Your task to perform on an android device: open app "Google Calendar" Image 0: 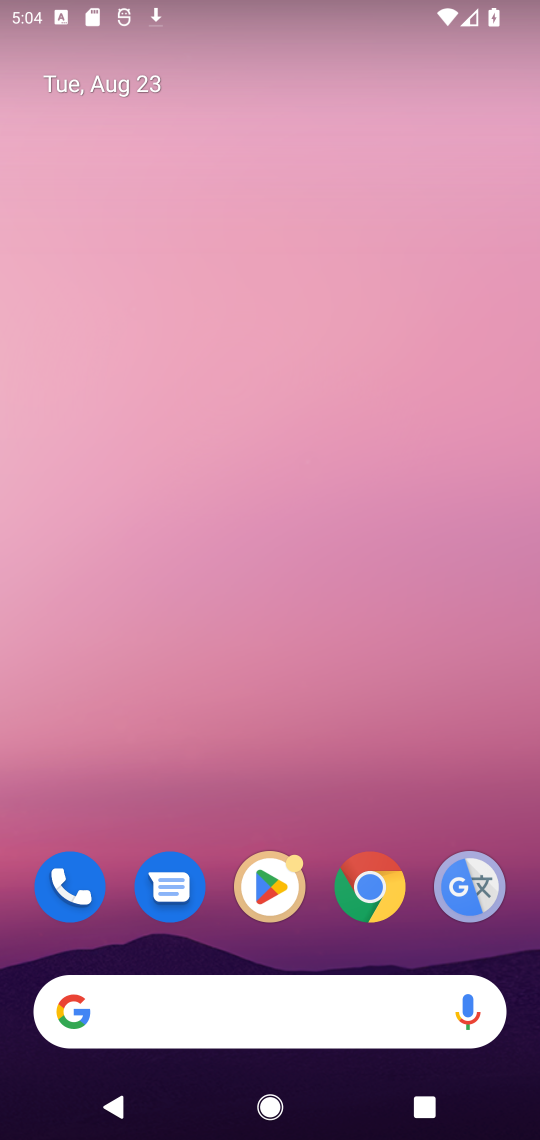
Step 0: click (245, 872)
Your task to perform on an android device: open app "Google Calendar" Image 1: 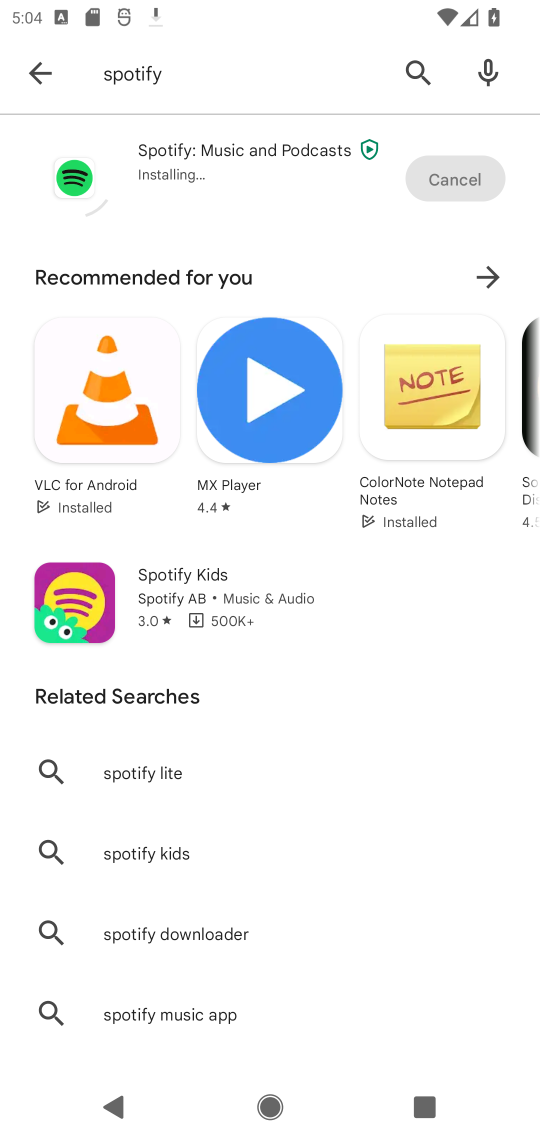
Step 1: click (467, 173)
Your task to perform on an android device: open app "Google Calendar" Image 2: 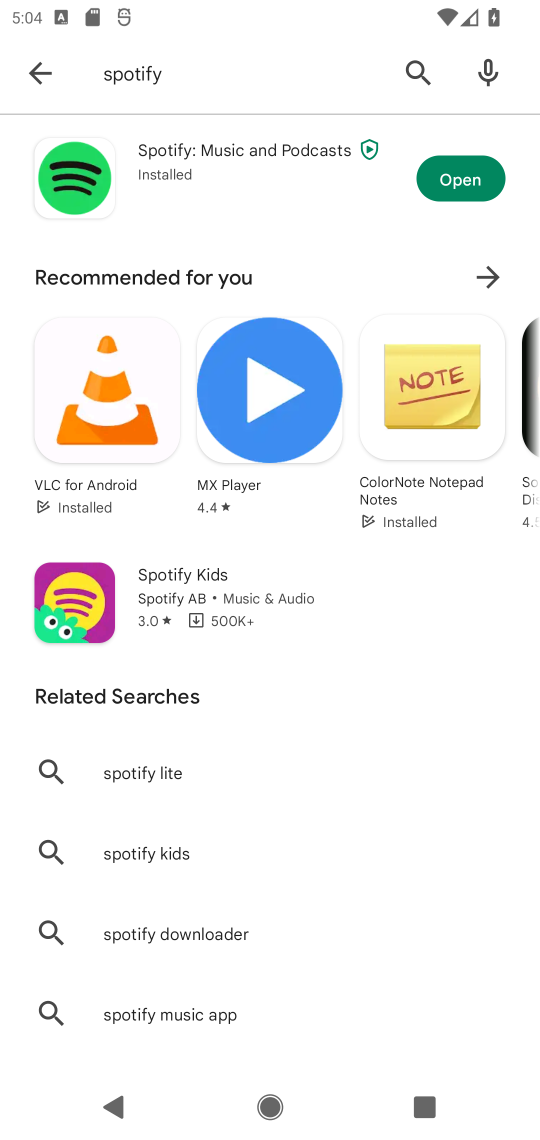
Step 2: click (34, 65)
Your task to perform on an android device: open app "Google Calendar" Image 3: 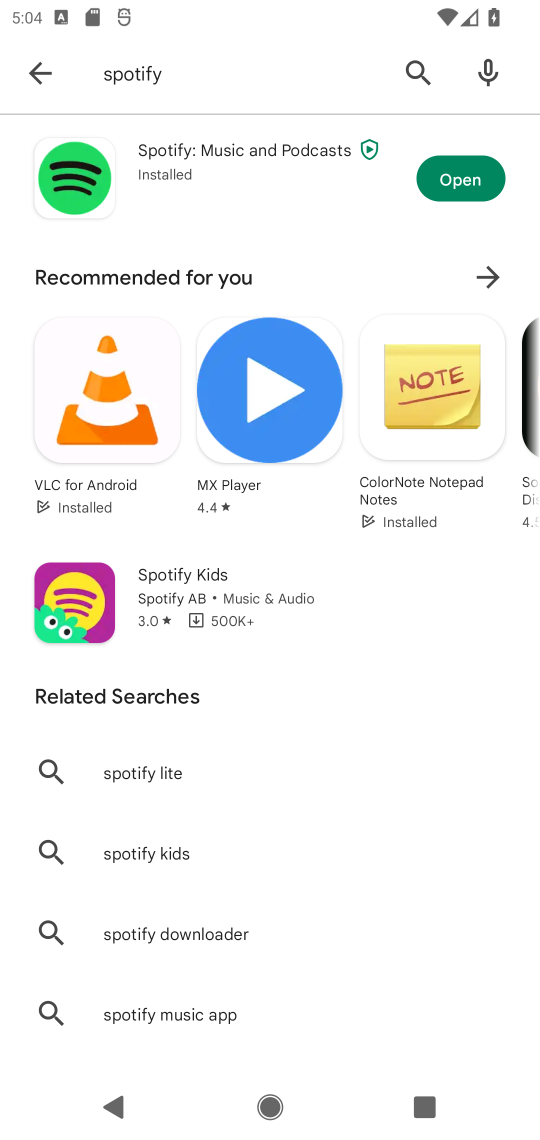
Step 3: click (35, 80)
Your task to perform on an android device: open app "Google Calendar" Image 4: 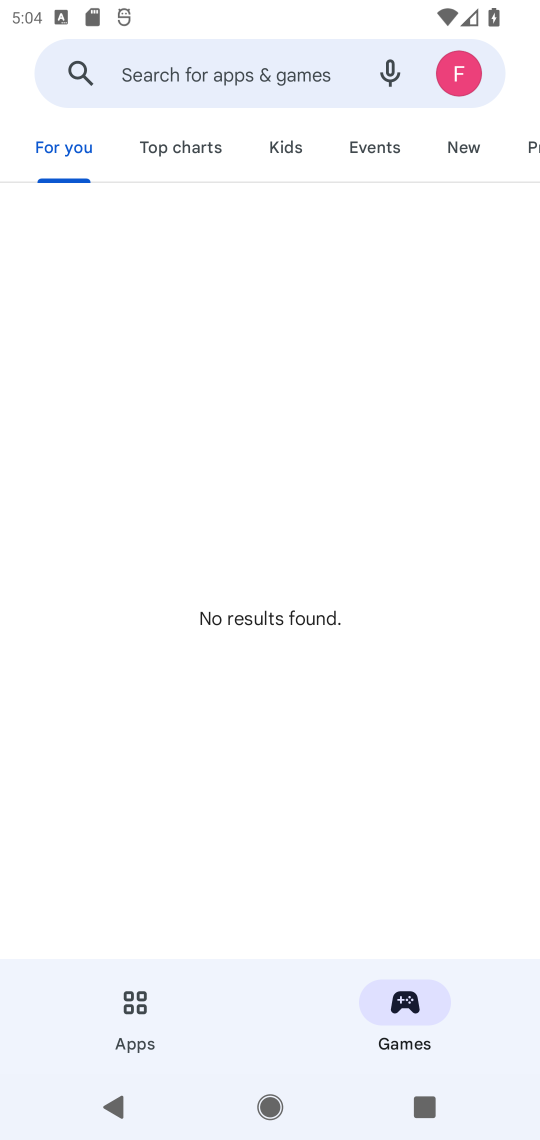
Step 4: click (141, 74)
Your task to perform on an android device: open app "Google Calendar" Image 5: 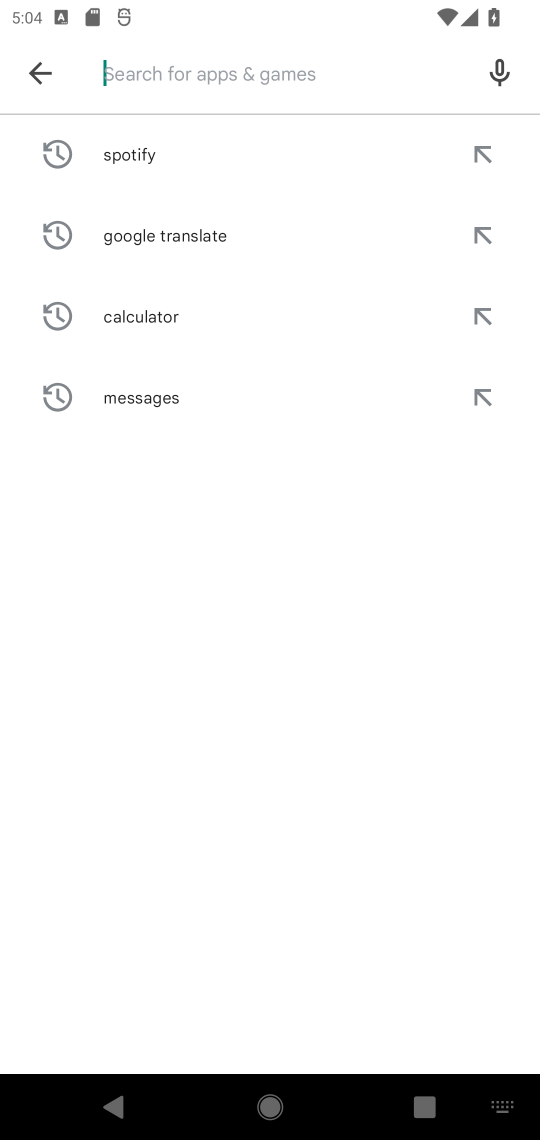
Step 5: type "Google Calendar"
Your task to perform on an android device: open app "Google Calendar" Image 6: 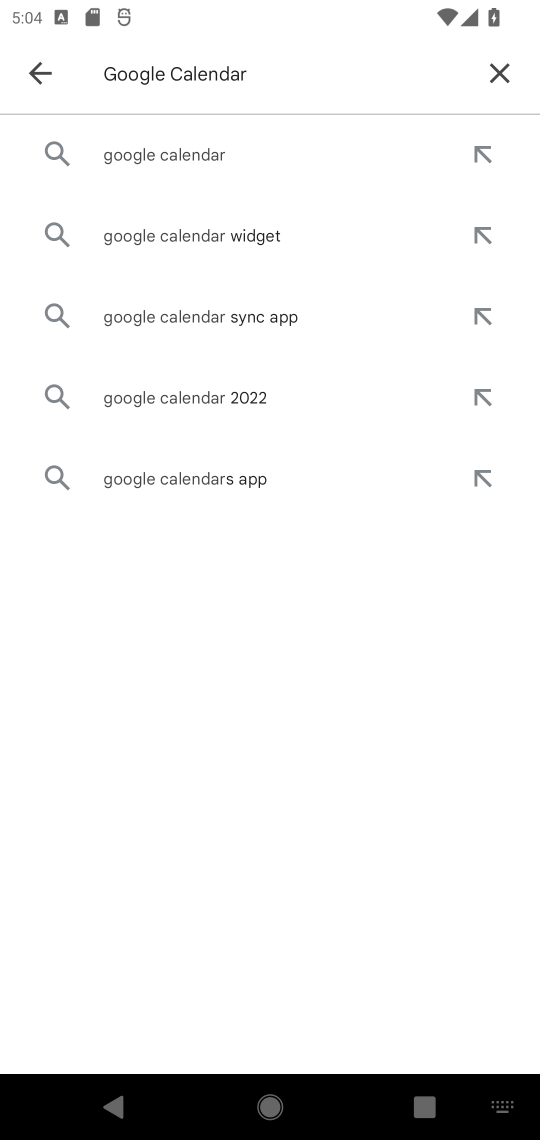
Step 6: click (214, 156)
Your task to perform on an android device: open app "Google Calendar" Image 7: 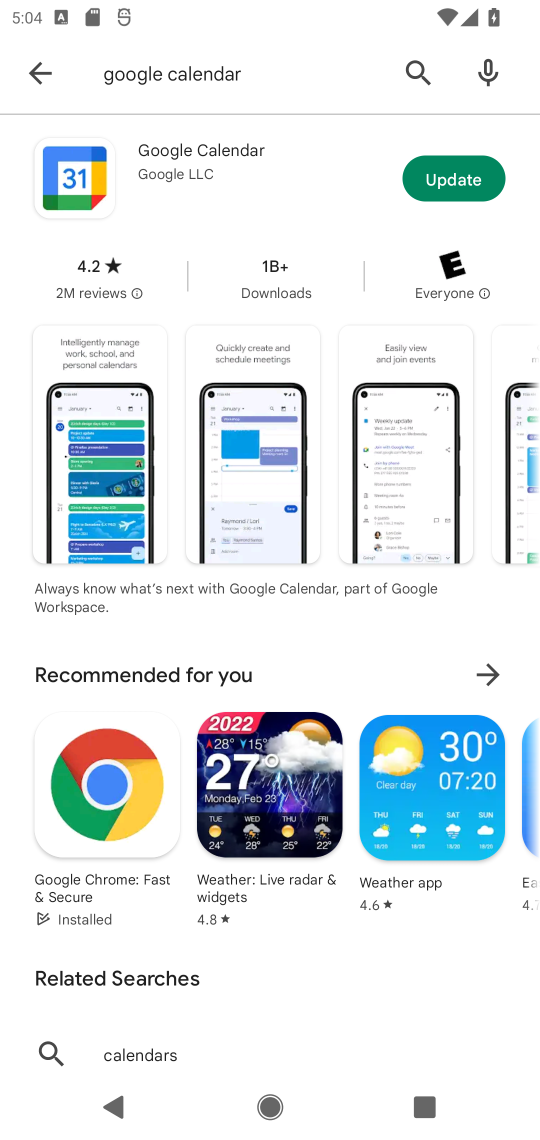
Step 7: click (434, 181)
Your task to perform on an android device: open app "Google Calendar" Image 8: 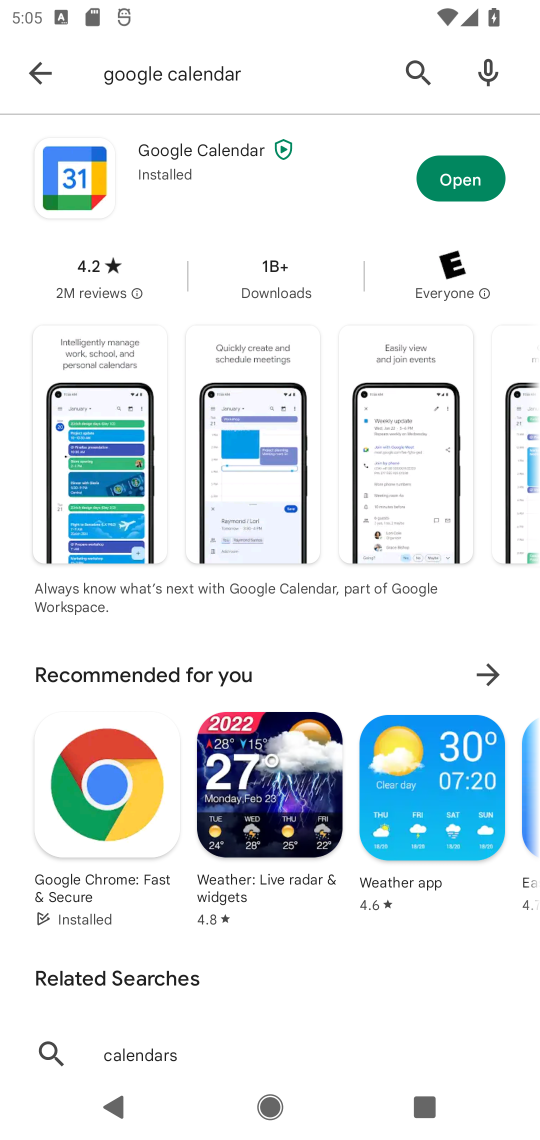
Step 8: click (454, 189)
Your task to perform on an android device: open app "Google Calendar" Image 9: 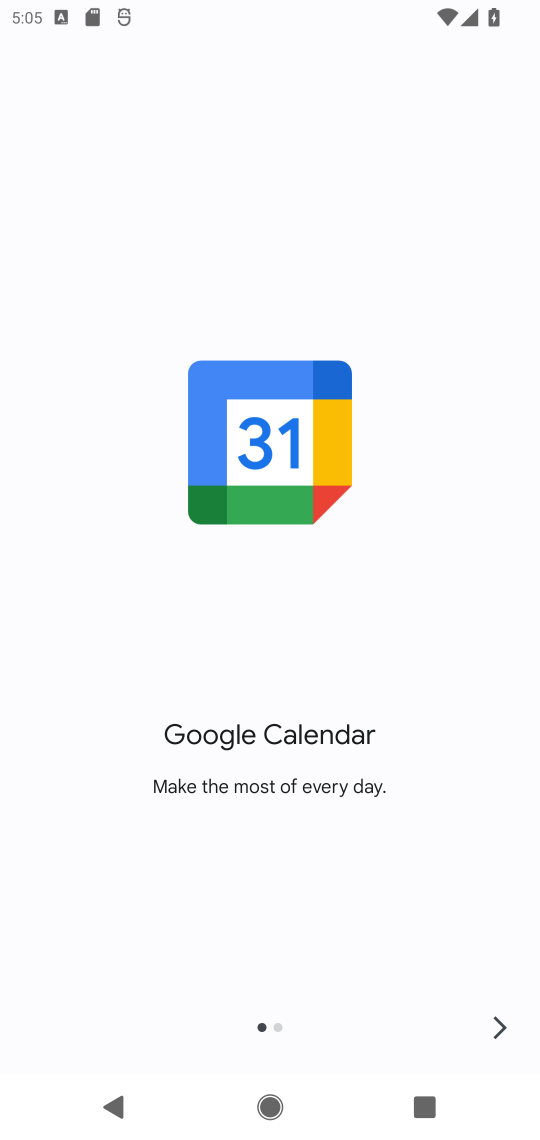
Step 9: click (496, 1033)
Your task to perform on an android device: open app "Google Calendar" Image 10: 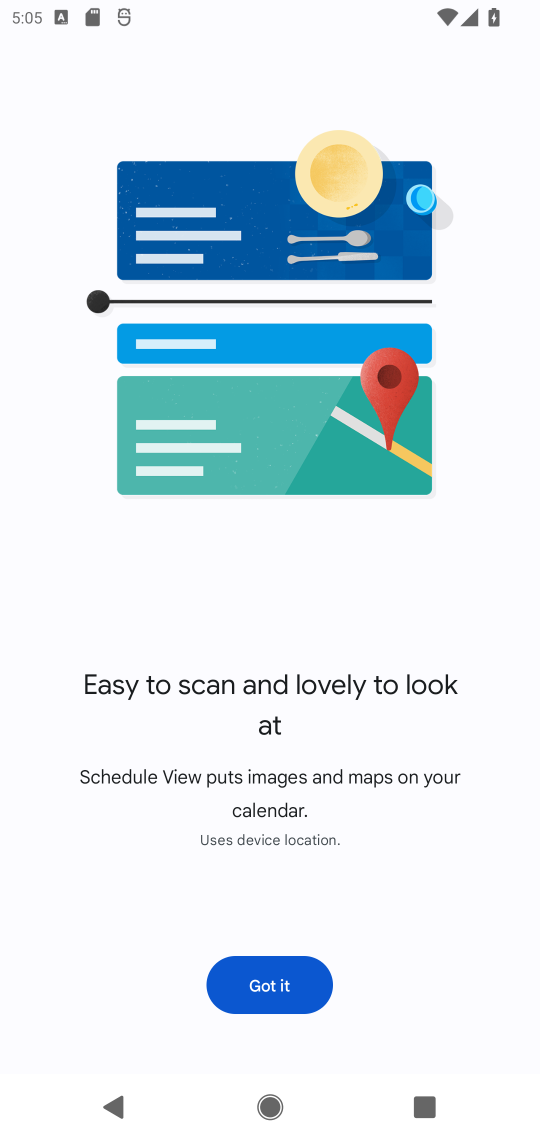
Step 10: click (496, 1033)
Your task to perform on an android device: open app "Google Calendar" Image 11: 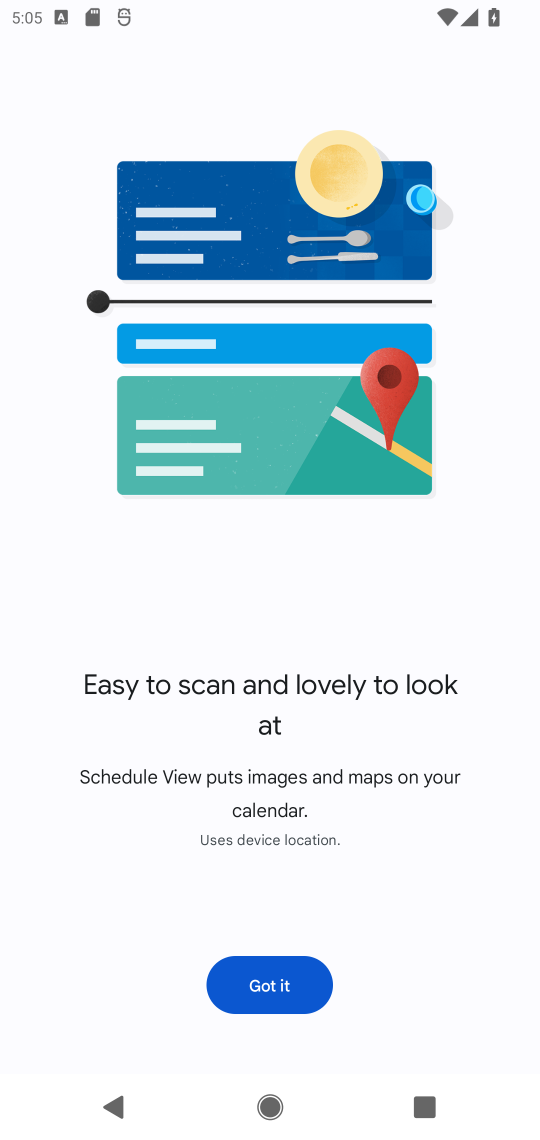
Step 11: click (277, 978)
Your task to perform on an android device: open app "Google Calendar" Image 12: 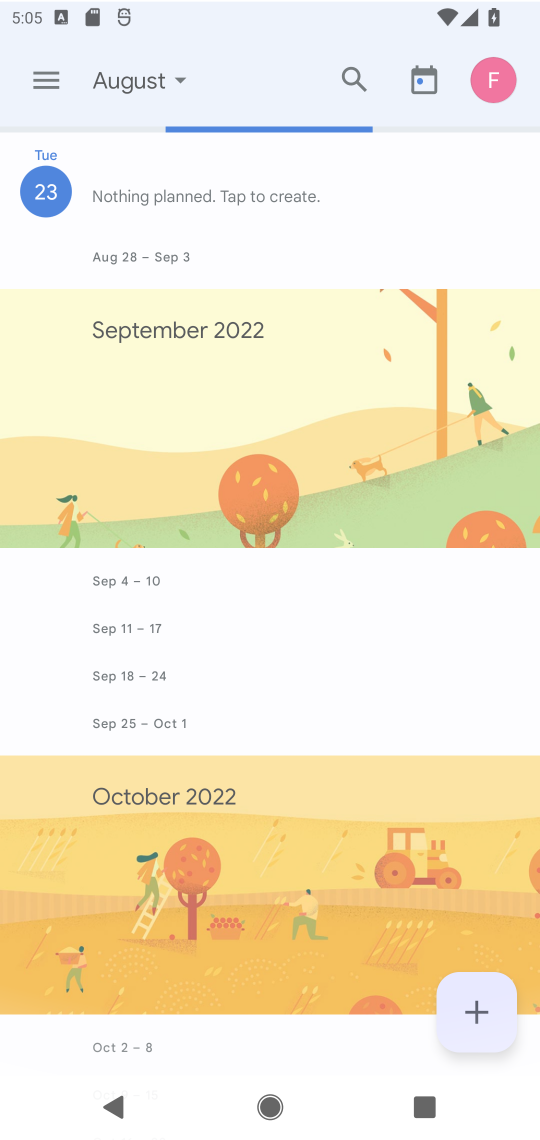
Step 12: task complete